Your task to perform on an android device: Go to Wikipedia Image 0: 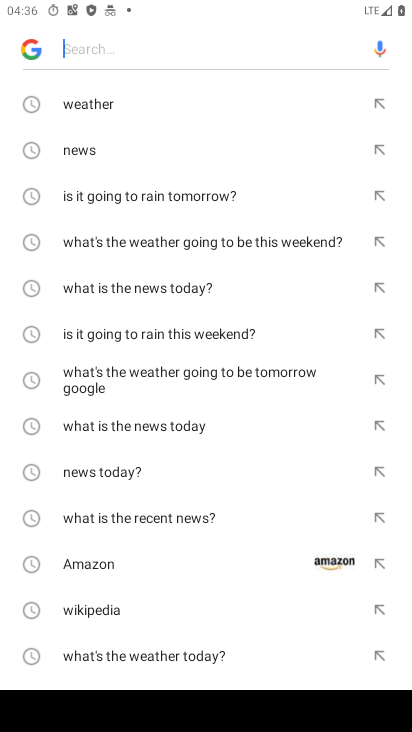
Step 0: press home button
Your task to perform on an android device: Go to Wikipedia Image 1: 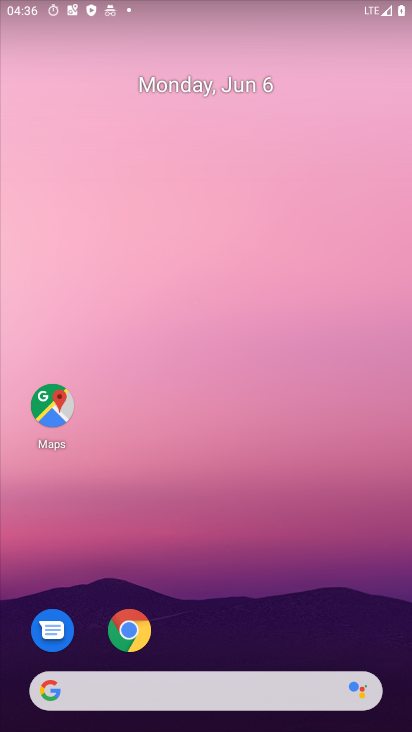
Step 1: drag from (285, 650) to (251, 106)
Your task to perform on an android device: Go to Wikipedia Image 2: 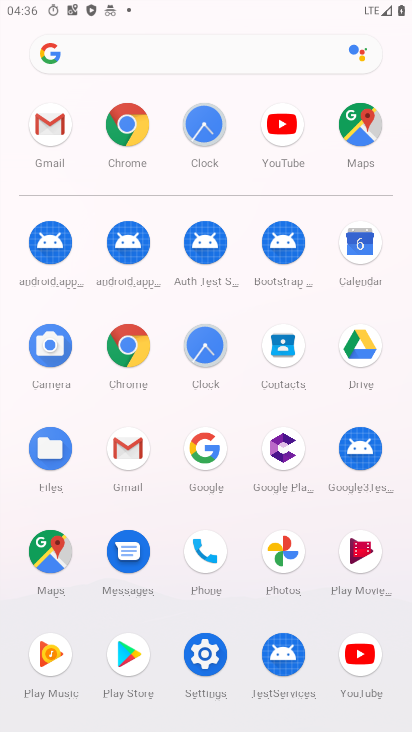
Step 2: click (117, 125)
Your task to perform on an android device: Go to Wikipedia Image 3: 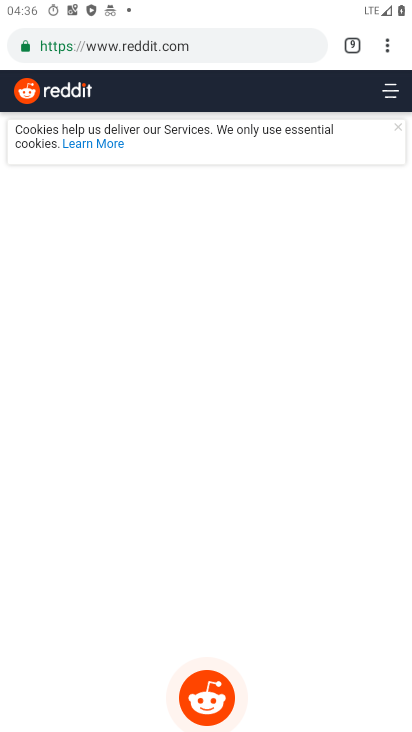
Step 3: click (219, 57)
Your task to perform on an android device: Go to Wikipedia Image 4: 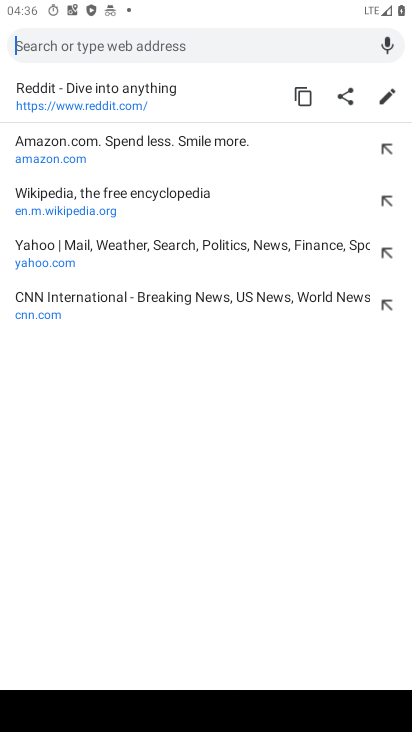
Step 4: type "Wikipedia"
Your task to perform on an android device: Go to Wikipedia Image 5: 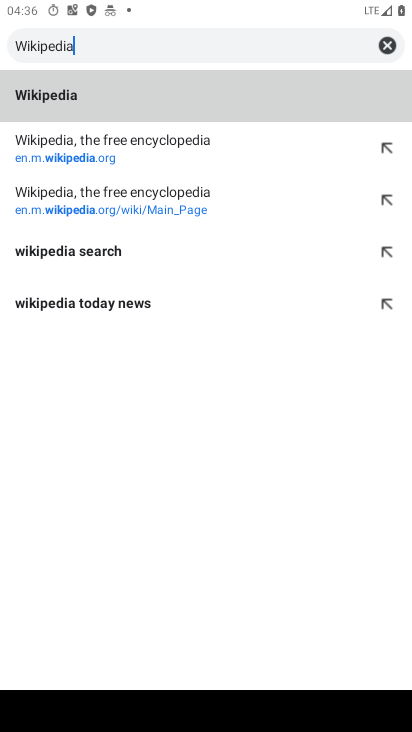
Step 5: click (38, 93)
Your task to perform on an android device: Go to Wikipedia Image 6: 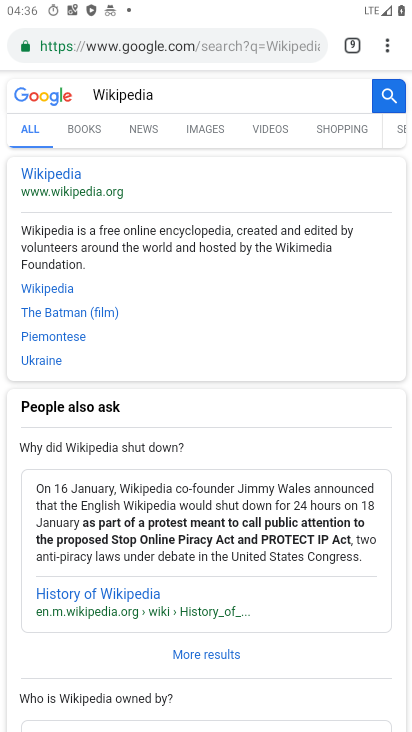
Step 6: click (42, 175)
Your task to perform on an android device: Go to Wikipedia Image 7: 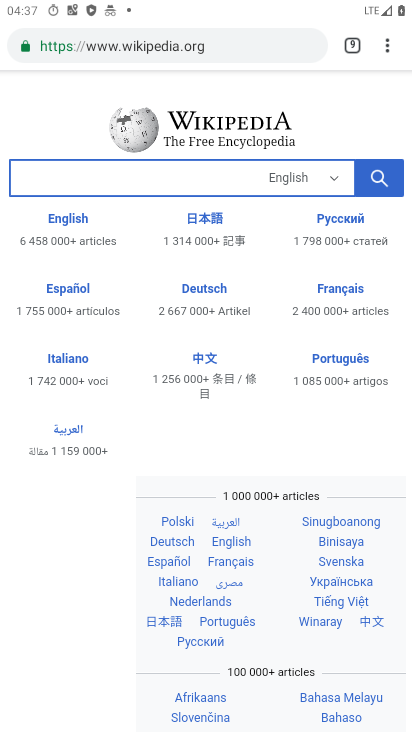
Step 7: task complete